Your task to perform on an android device: Go to location settings Image 0: 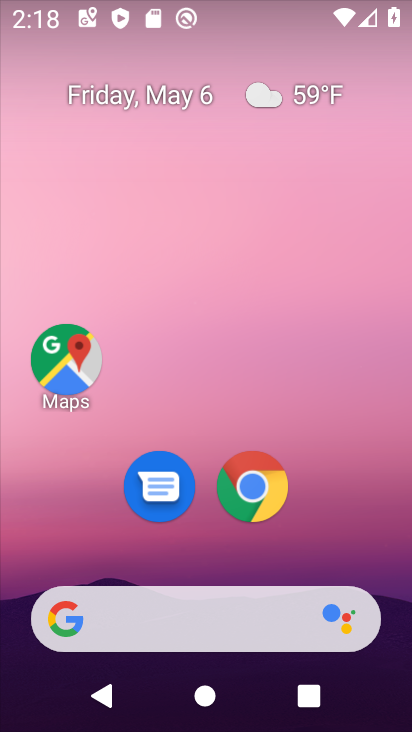
Step 0: drag from (369, 510) to (315, 19)
Your task to perform on an android device: Go to location settings Image 1: 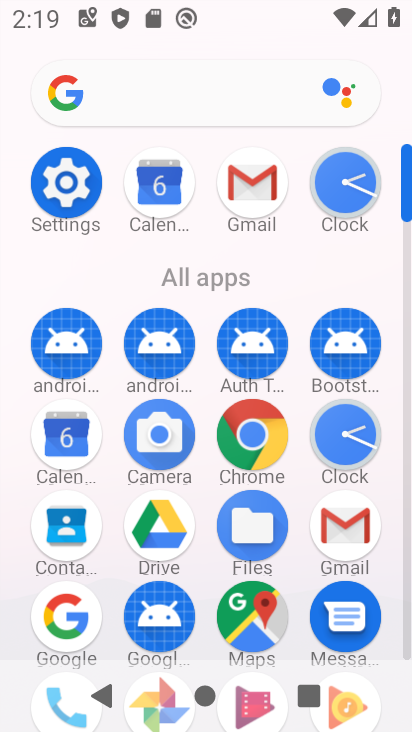
Step 1: click (62, 167)
Your task to perform on an android device: Go to location settings Image 2: 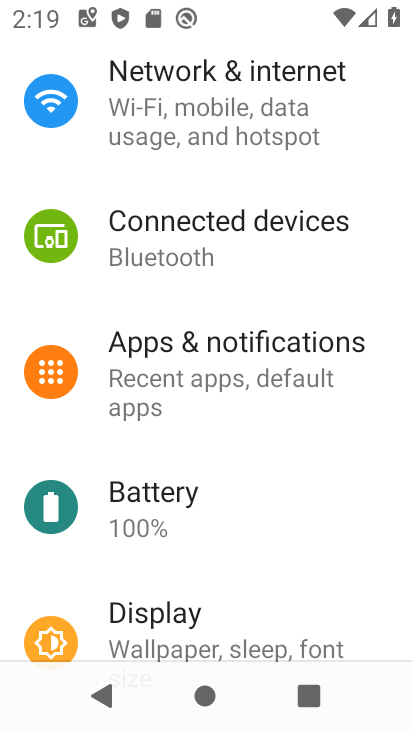
Step 2: drag from (233, 534) to (213, 196)
Your task to perform on an android device: Go to location settings Image 3: 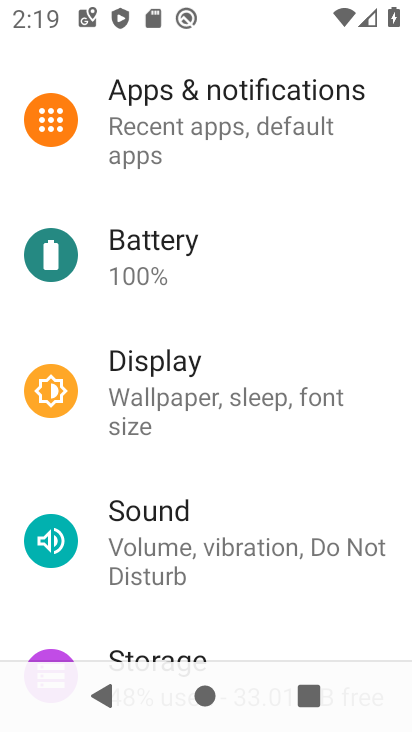
Step 3: drag from (213, 472) to (198, 65)
Your task to perform on an android device: Go to location settings Image 4: 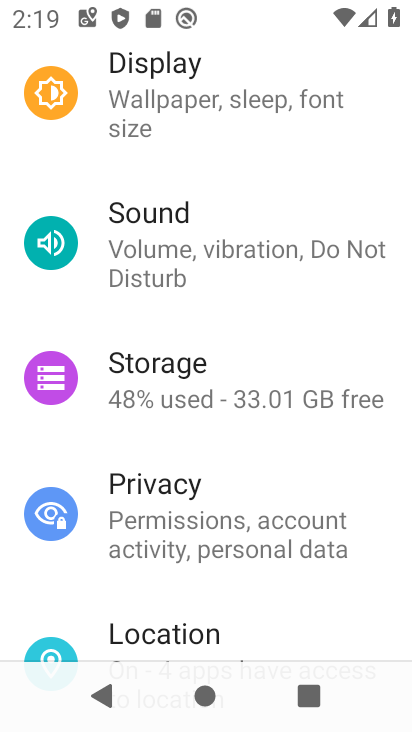
Step 4: drag from (243, 582) to (217, 188)
Your task to perform on an android device: Go to location settings Image 5: 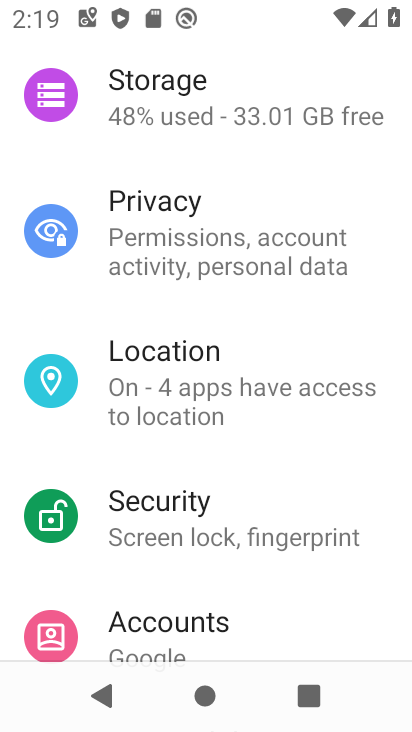
Step 5: click (153, 365)
Your task to perform on an android device: Go to location settings Image 6: 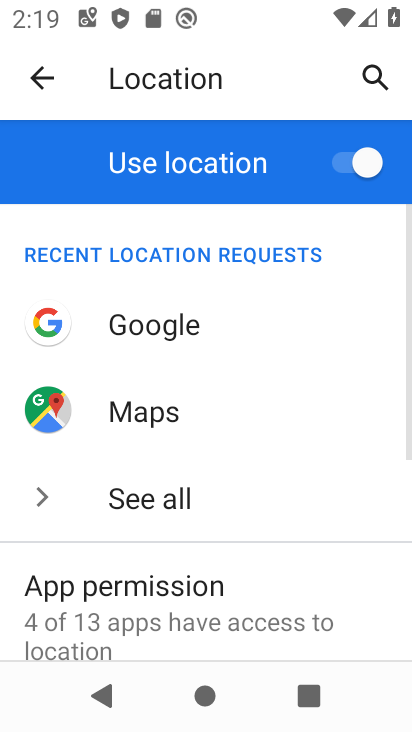
Step 6: task complete